Your task to perform on an android device: open sync settings in chrome Image 0: 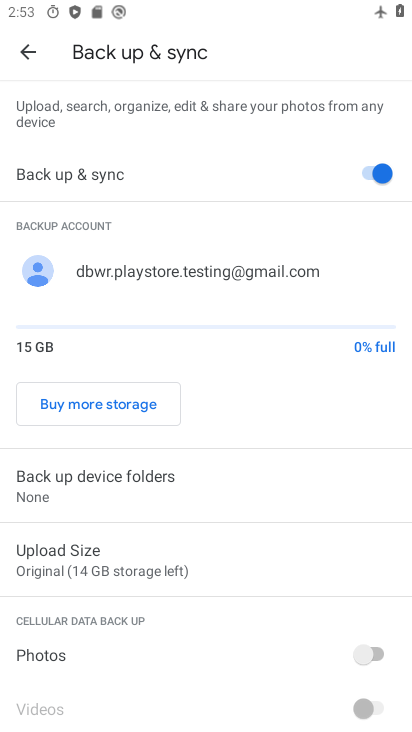
Step 0: press home button
Your task to perform on an android device: open sync settings in chrome Image 1: 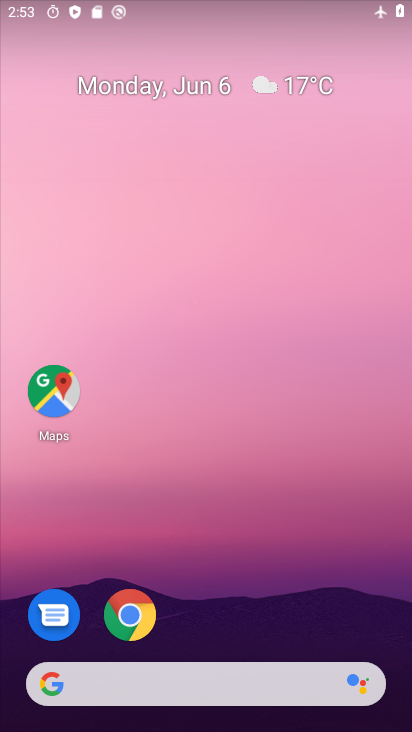
Step 1: click (138, 595)
Your task to perform on an android device: open sync settings in chrome Image 2: 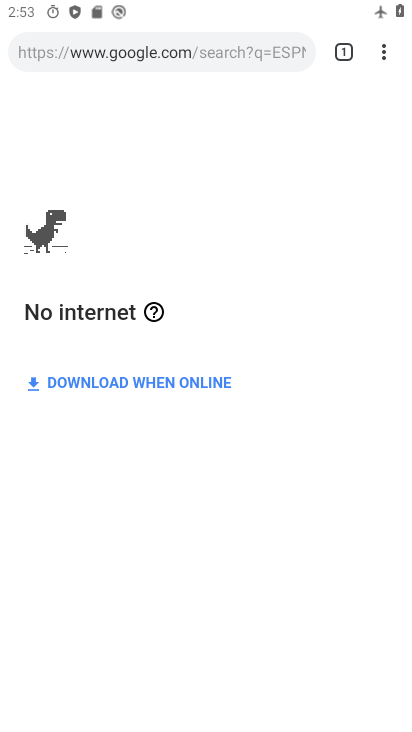
Step 2: click (386, 51)
Your task to perform on an android device: open sync settings in chrome Image 3: 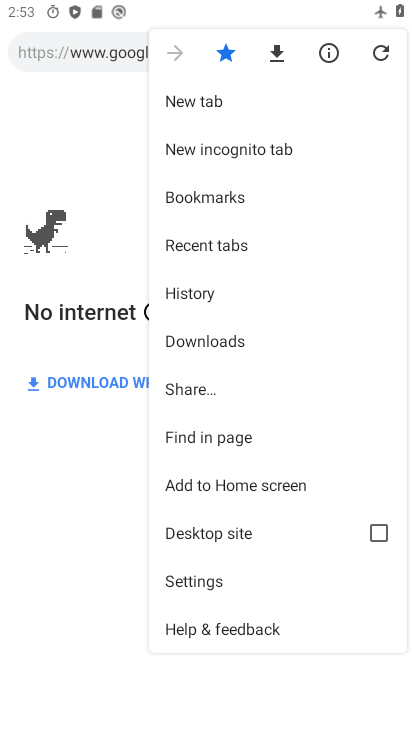
Step 3: click (206, 586)
Your task to perform on an android device: open sync settings in chrome Image 4: 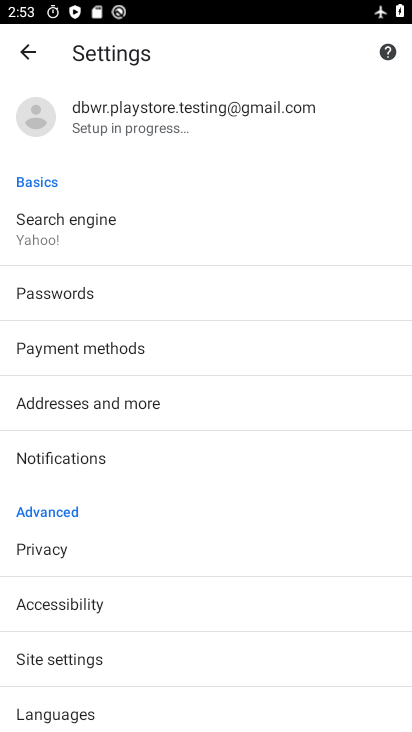
Step 4: click (171, 111)
Your task to perform on an android device: open sync settings in chrome Image 5: 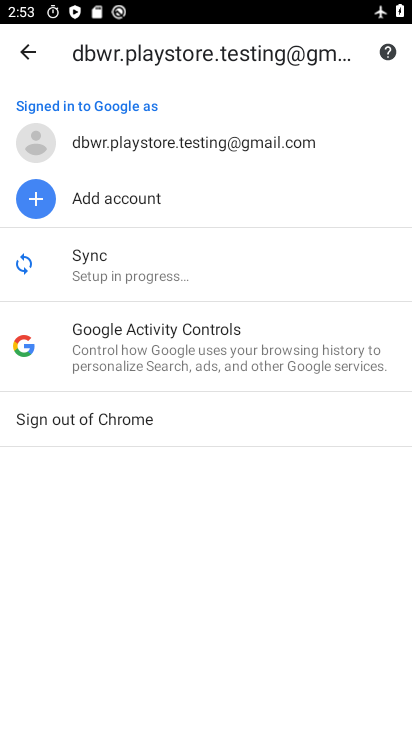
Step 5: click (135, 282)
Your task to perform on an android device: open sync settings in chrome Image 6: 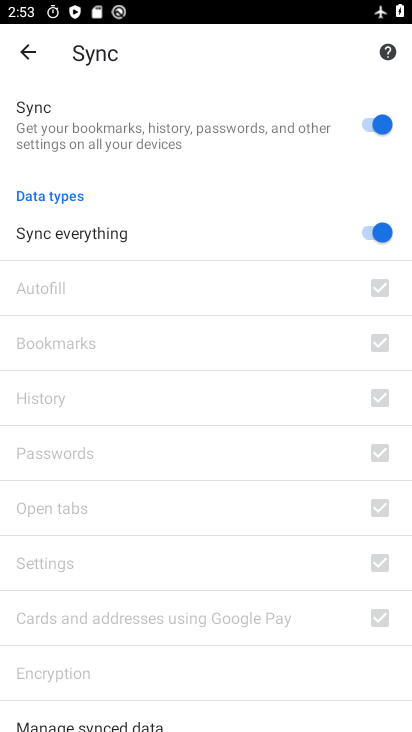
Step 6: task complete